Your task to perform on an android device: Open settings Image 0: 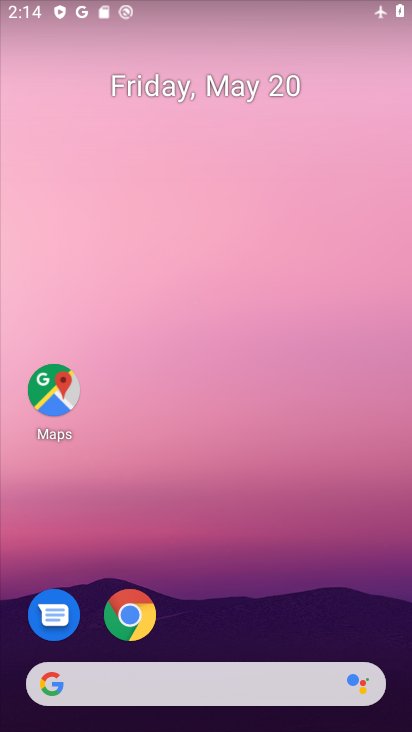
Step 0: drag from (225, 639) to (172, 14)
Your task to perform on an android device: Open settings Image 1: 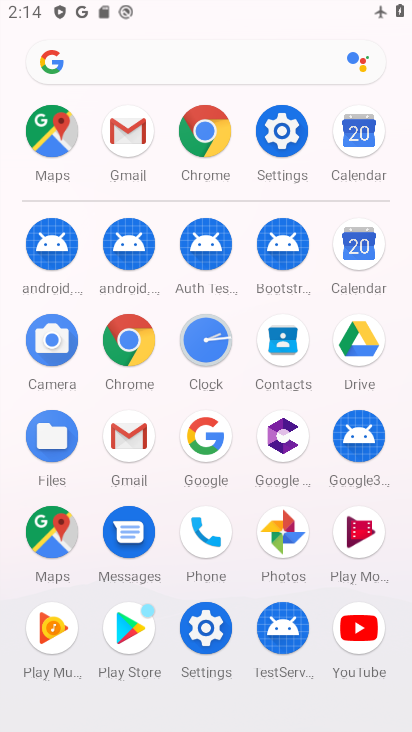
Step 1: click (284, 117)
Your task to perform on an android device: Open settings Image 2: 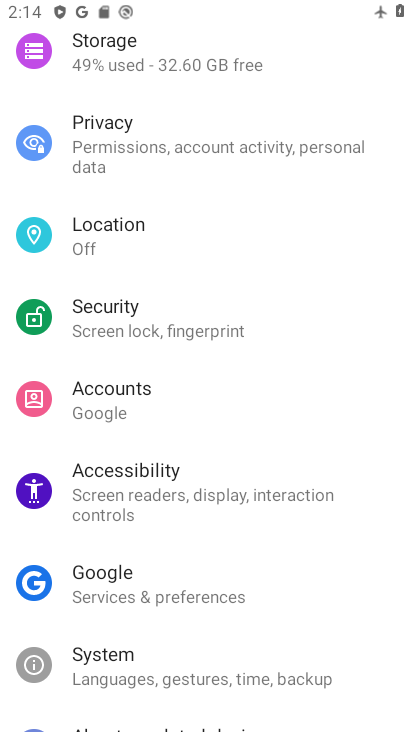
Step 2: task complete